Your task to perform on an android device: turn off airplane mode Image 0: 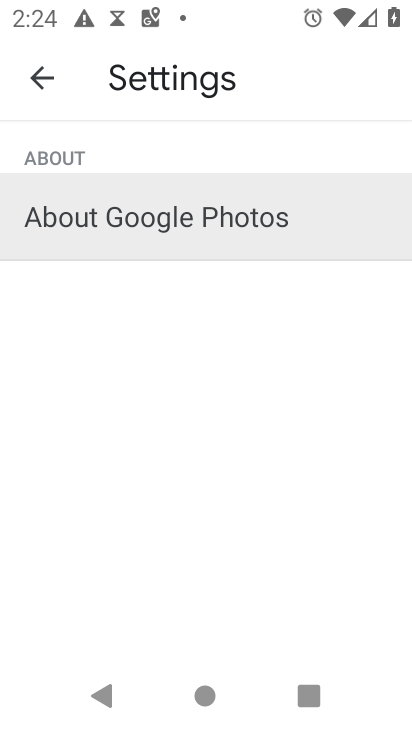
Step 0: press back button
Your task to perform on an android device: turn off airplane mode Image 1: 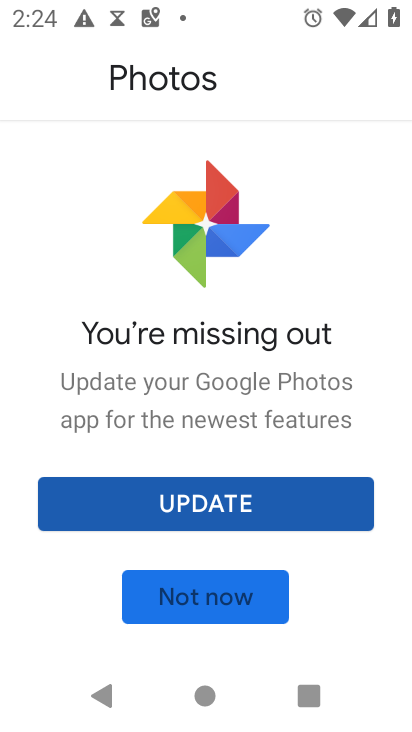
Step 1: task complete